Your task to perform on an android device: check battery use Image 0: 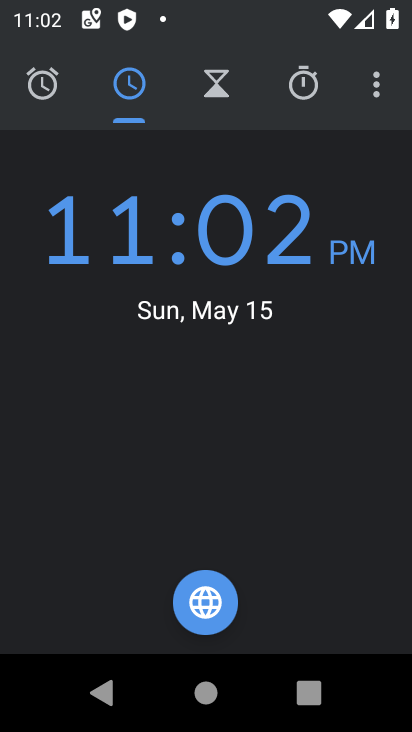
Step 0: click (348, 239)
Your task to perform on an android device: check battery use Image 1: 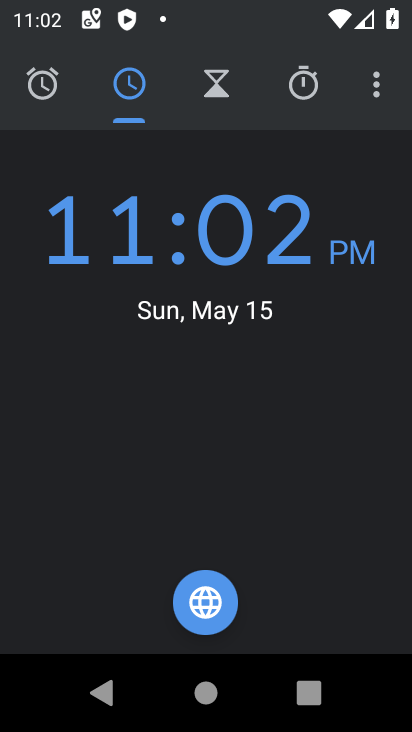
Step 1: press home button
Your task to perform on an android device: check battery use Image 2: 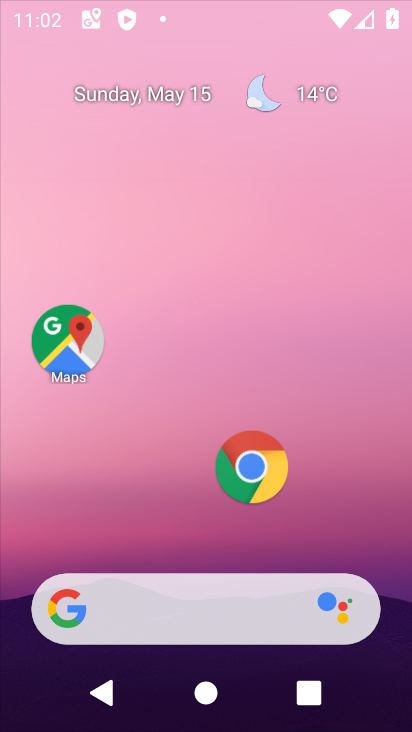
Step 2: drag from (91, 547) to (326, 62)
Your task to perform on an android device: check battery use Image 3: 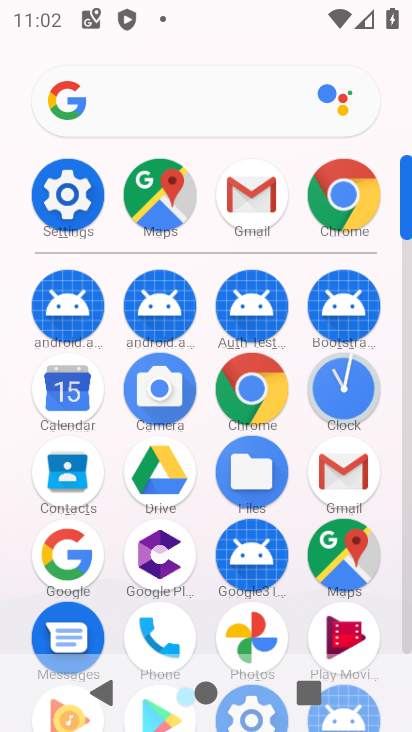
Step 3: click (70, 195)
Your task to perform on an android device: check battery use Image 4: 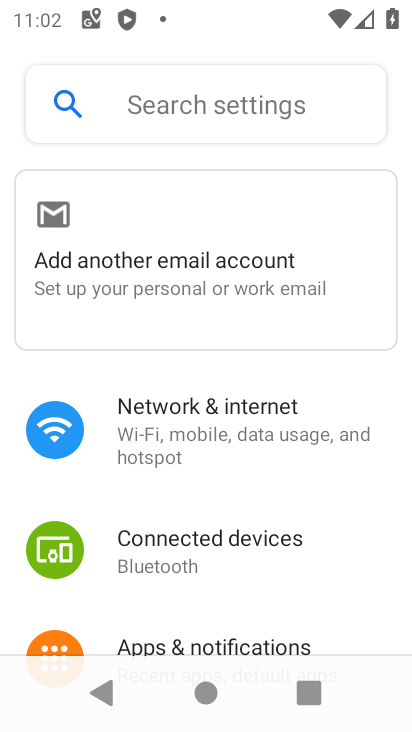
Step 4: drag from (193, 584) to (334, 166)
Your task to perform on an android device: check battery use Image 5: 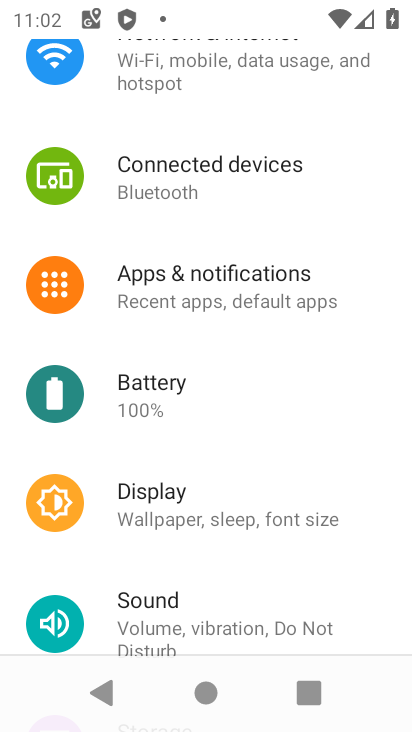
Step 5: click (160, 403)
Your task to perform on an android device: check battery use Image 6: 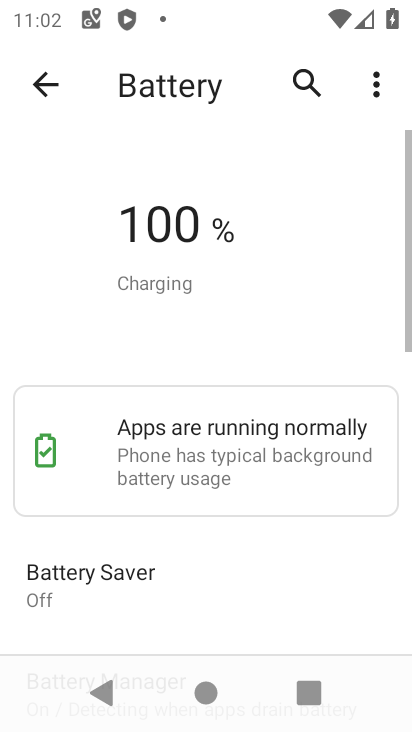
Step 6: click (376, 88)
Your task to perform on an android device: check battery use Image 7: 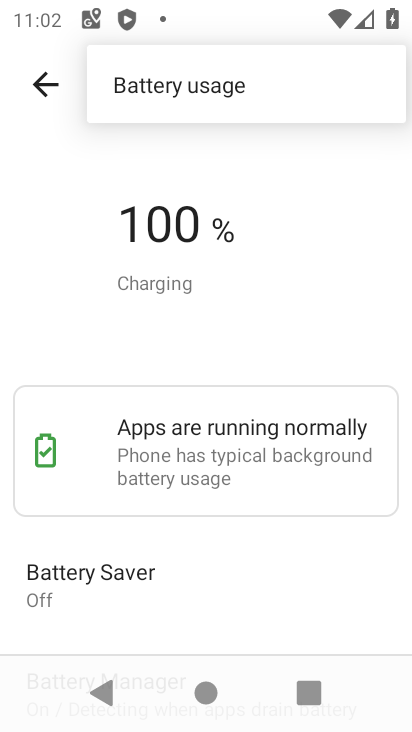
Step 7: click (201, 92)
Your task to perform on an android device: check battery use Image 8: 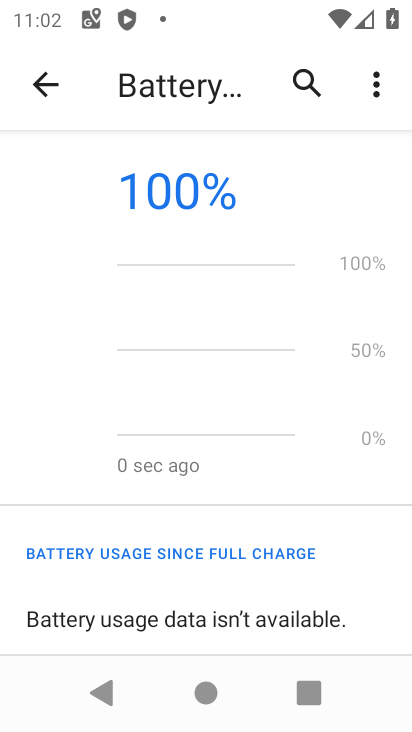
Step 8: click (236, 246)
Your task to perform on an android device: check battery use Image 9: 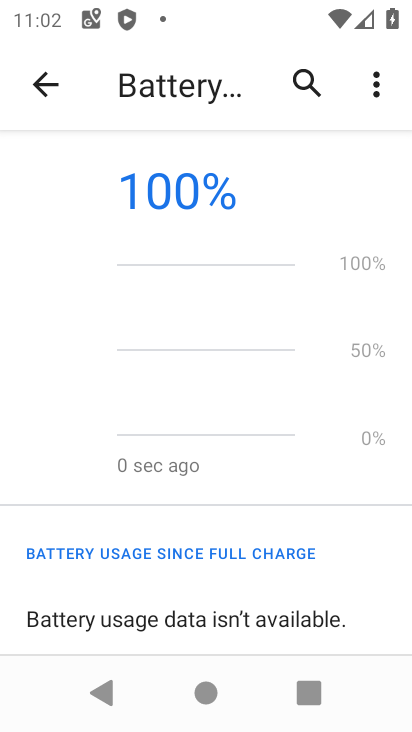
Step 9: task complete